Your task to perform on an android device: stop showing notifications on the lock screen Image 0: 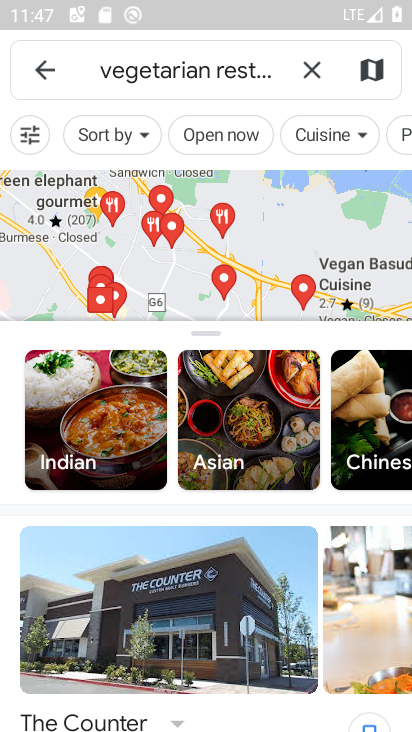
Step 0: click (46, 70)
Your task to perform on an android device: stop showing notifications on the lock screen Image 1: 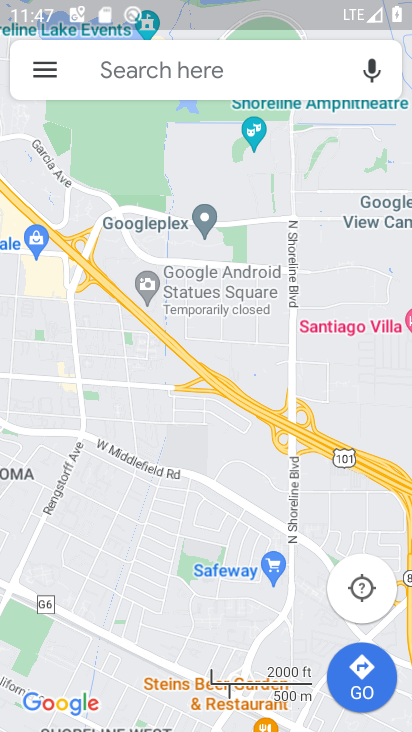
Step 1: press home button
Your task to perform on an android device: stop showing notifications on the lock screen Image 2: 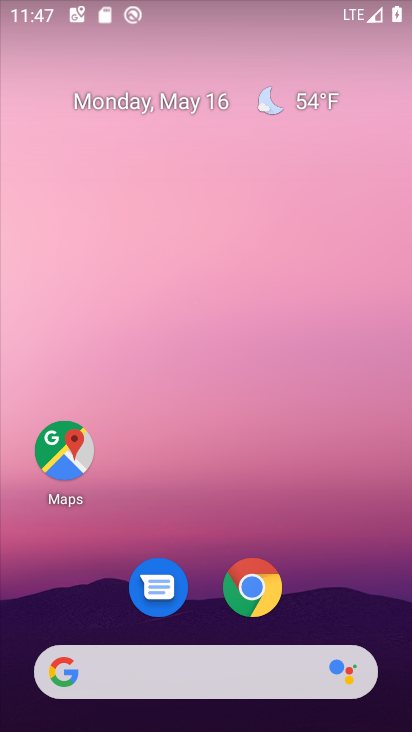
Step 2: drag from (213, 598) to (315, 25)
Your task to perform on an android device: stop showing notifications on the lock screen Image 3: 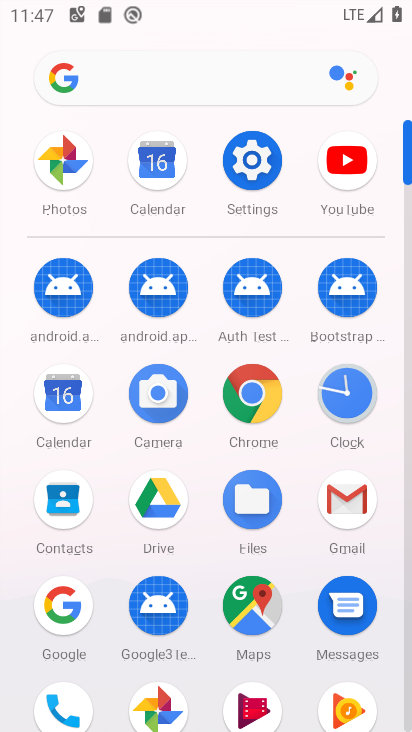
Step 3: click (248, 179)
Your task to perform on an android device: stop showing notifications on the lock screen Image 4: 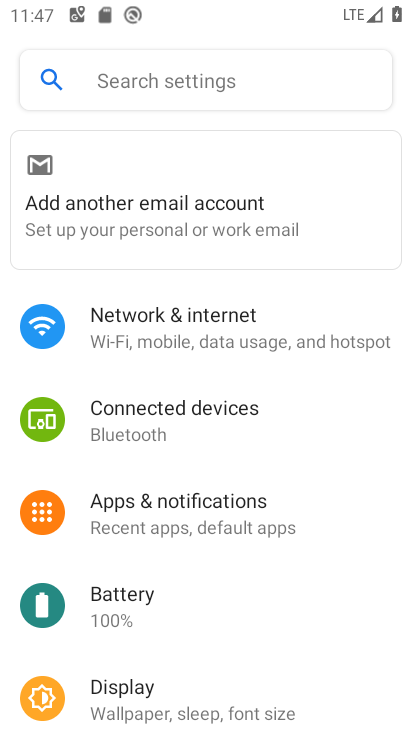
Step 4: click (202, 520)
Your task to perform on an android device: stop showing notifications on the lock screen Image 5: 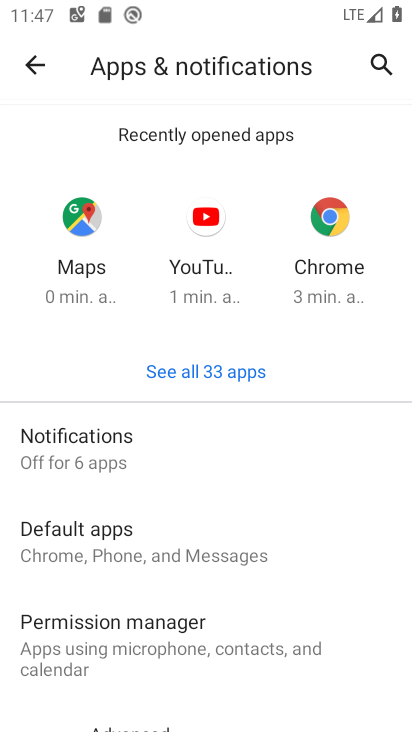
Step 5: drag from (240, 569) to (263, 309)
Your task to perform on an android device: stop showing notifications on the lock screen Image 6: 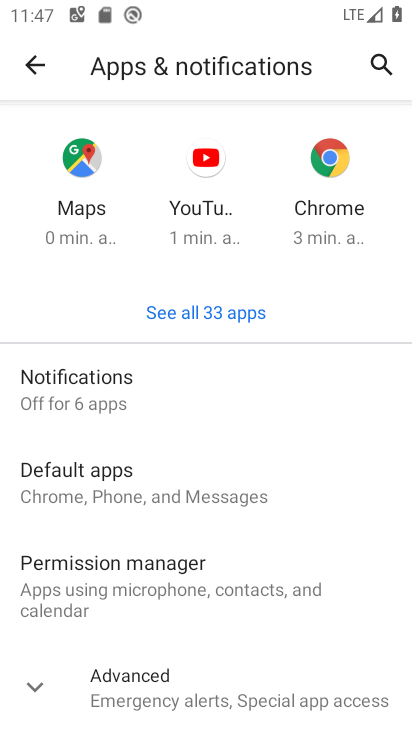
Step 6: click (85, 370)
Your task to perform on an android device: stop showing notifications on the lock screen Image 7: 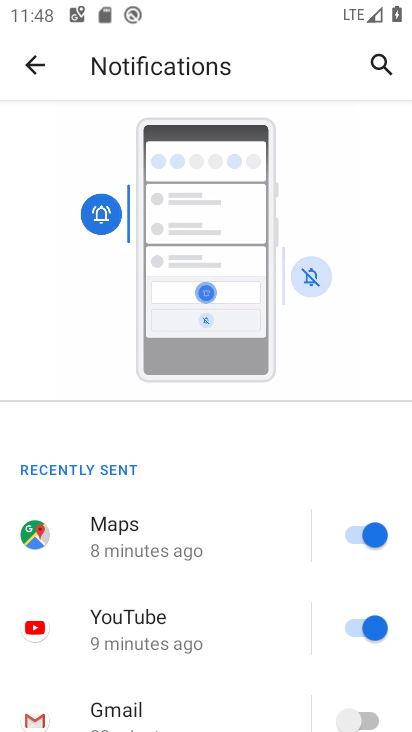
Step 7: drag from (157, 583) to (203, 296)
Your task to perform on an android device: stop showing notifications on the lock screen Image 8: 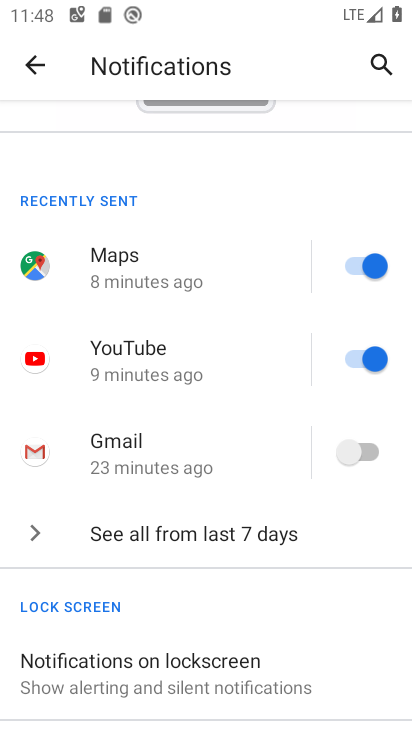
Step 8: drag from (182, 634) to (221, 338)
Your task to perform on an android device: stop showing notifications on the lock screen Image 9: 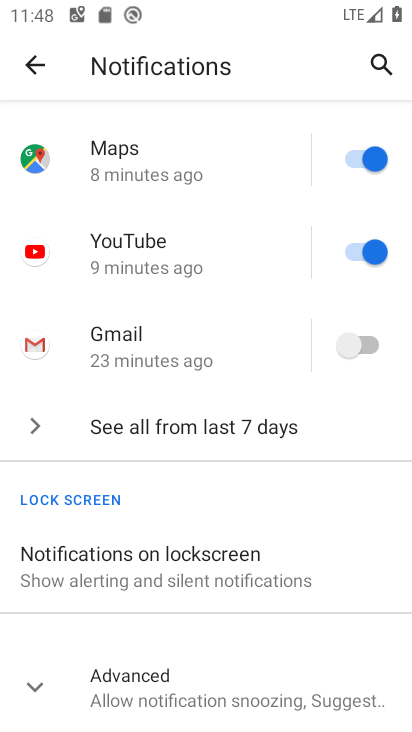
Step 9: click (168, 578)
Your task to perform on an android device: stop showing notifications on the lock screen Image 10: 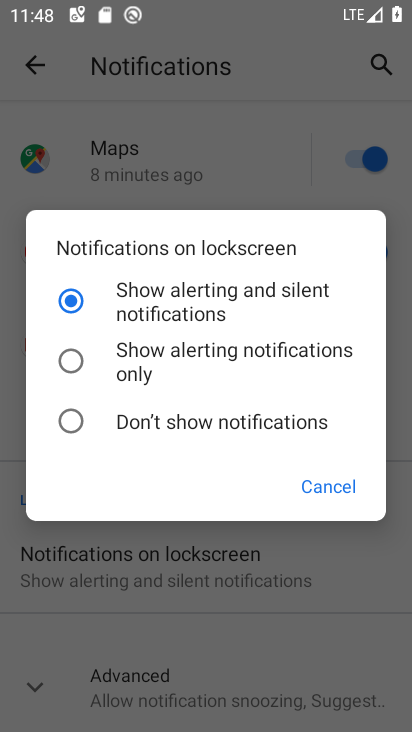
Step 10: click (156, 421)
Your task to perform on an android device: stop showing notifications on the lock screen Image 11: 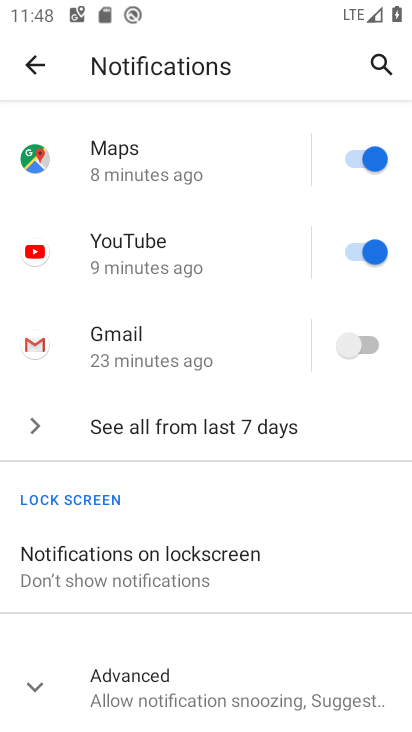
Step 11: task complete